Your task to perform on an android device: set default search engine in the chrome app Image 0: 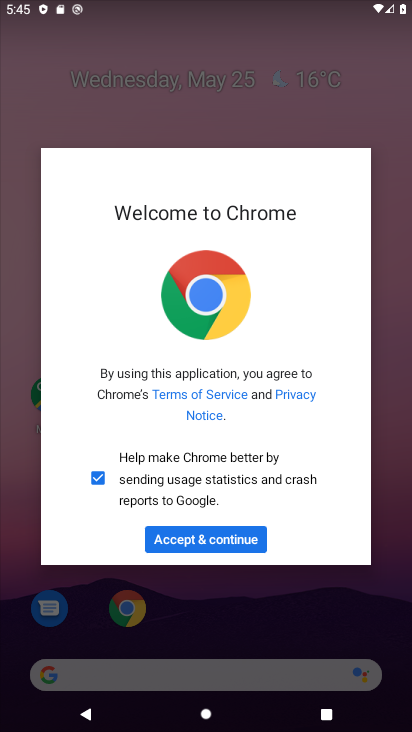
Step 0: press home button
Your task to perform on an android device: set default search engine in the chrome app Image 1: 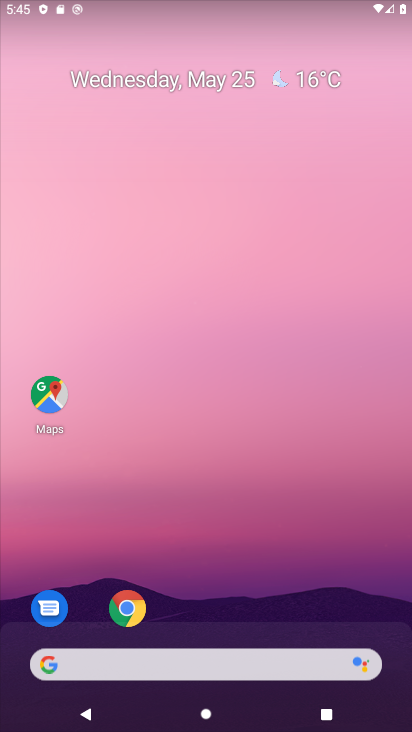
Step 1: drag from (311, 609) to (333, 6)
Your task to perform on an android device: set default search engine in the chrome app Image 2: 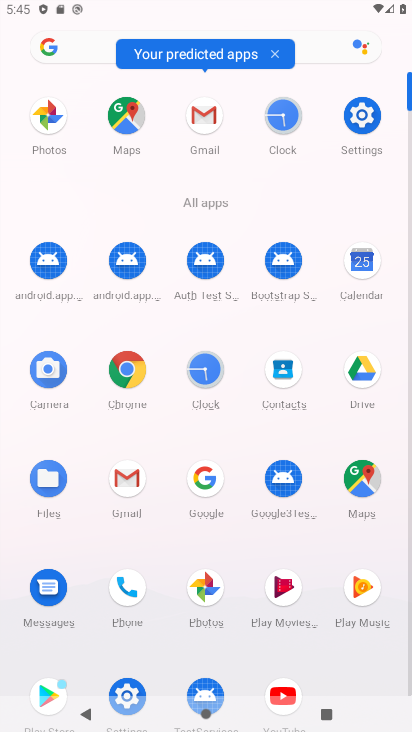
Step 2: click (120, 382)
Your task to perform on an android device: set default search engine in the chrome app Image 3: 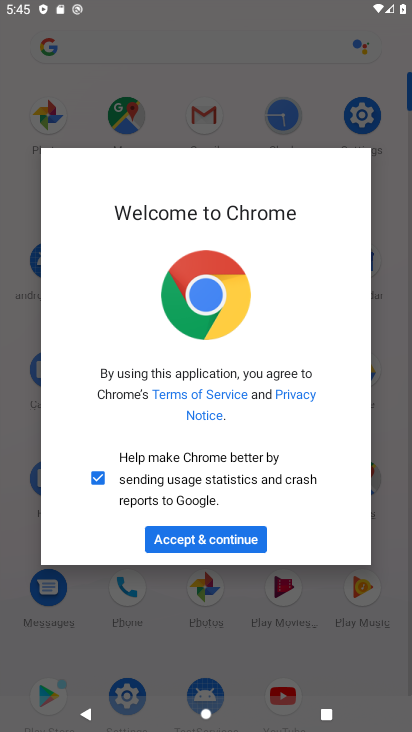
Step 3: click (234, 540)
Your task to perform on an android device: set default search engine in the chrome app Image 4: 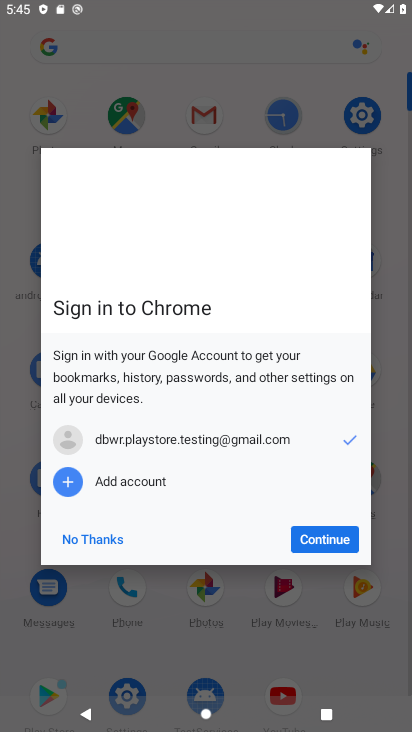
Step 4: click (103, 542)
Your task to perform on an android device: set default search engine in the chrome app Image 5: 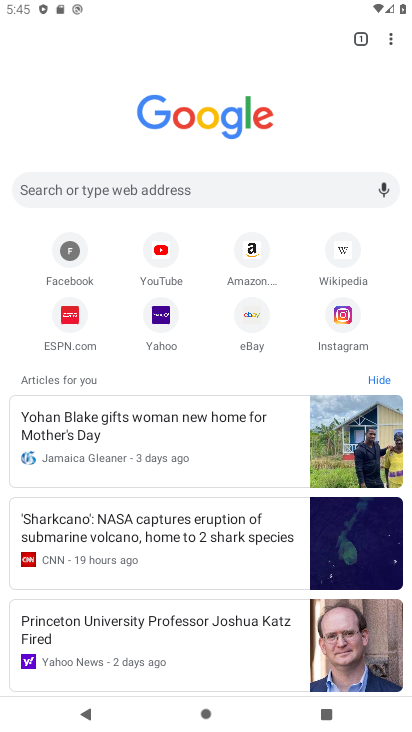
Step 5: drag from (387, 38) to (271, 339)
Your task to perform on an android device: set default search engine in the chrome app Image 6: 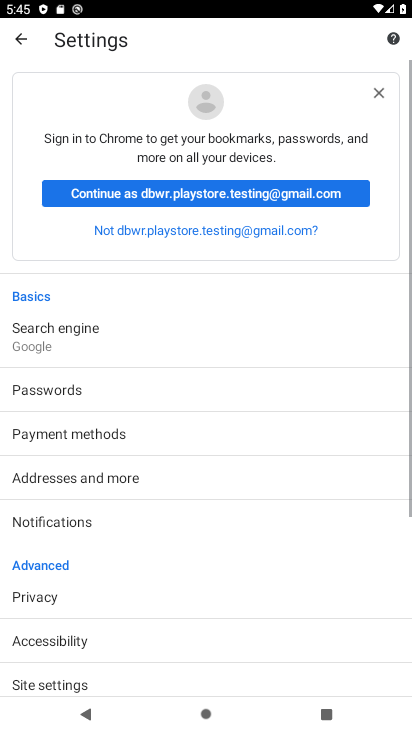
Step 6: click (106, 344)
Your task to perform on an android device: set default search engine in the chrome app Image 7: 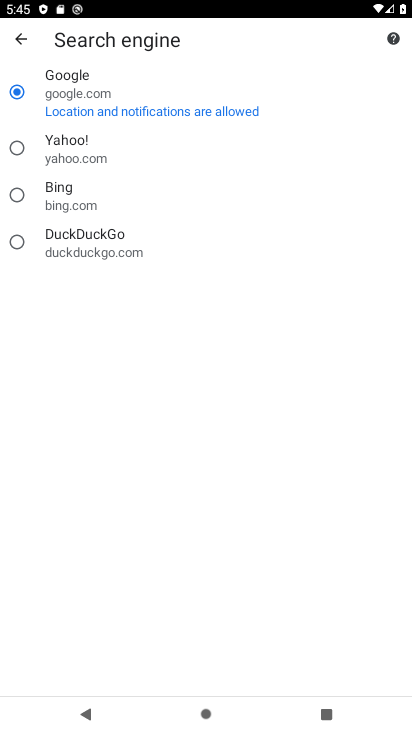
Step 7: task complete